Your task to perform on an android device: check data usage Image 0: 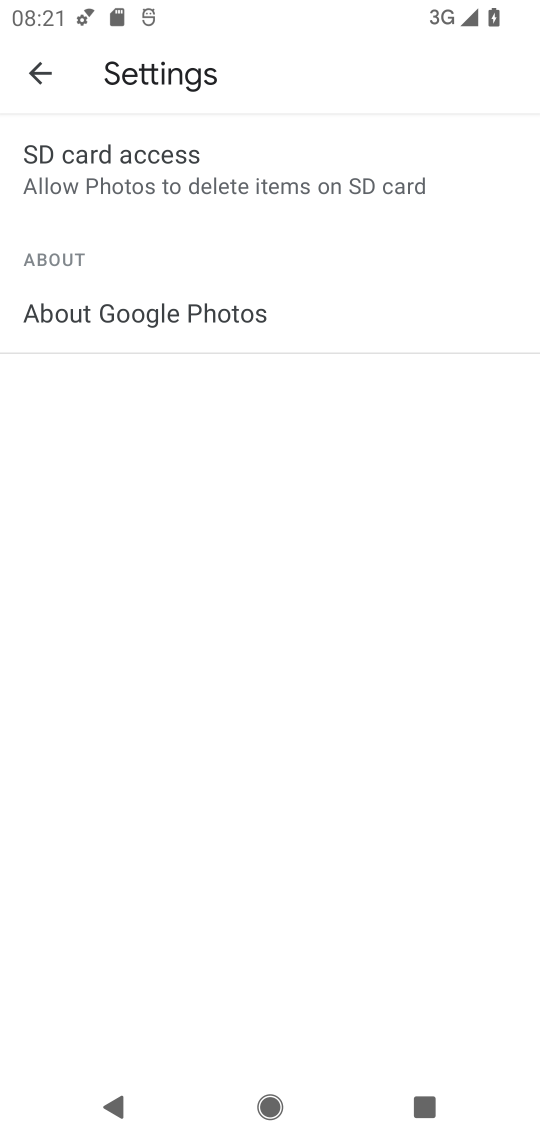
Step 0: press home button
Your task to perform on an android device: check data usage Image 1: 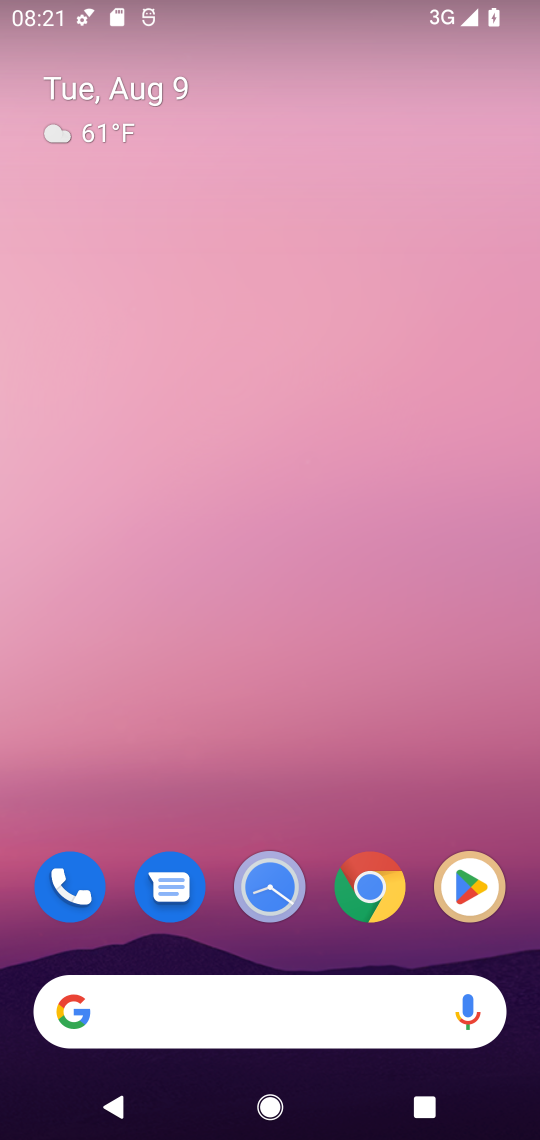
Step 1: drag from (333, 813) to (438, 0)
Your task to perform on an android device: check data usage Image 2: 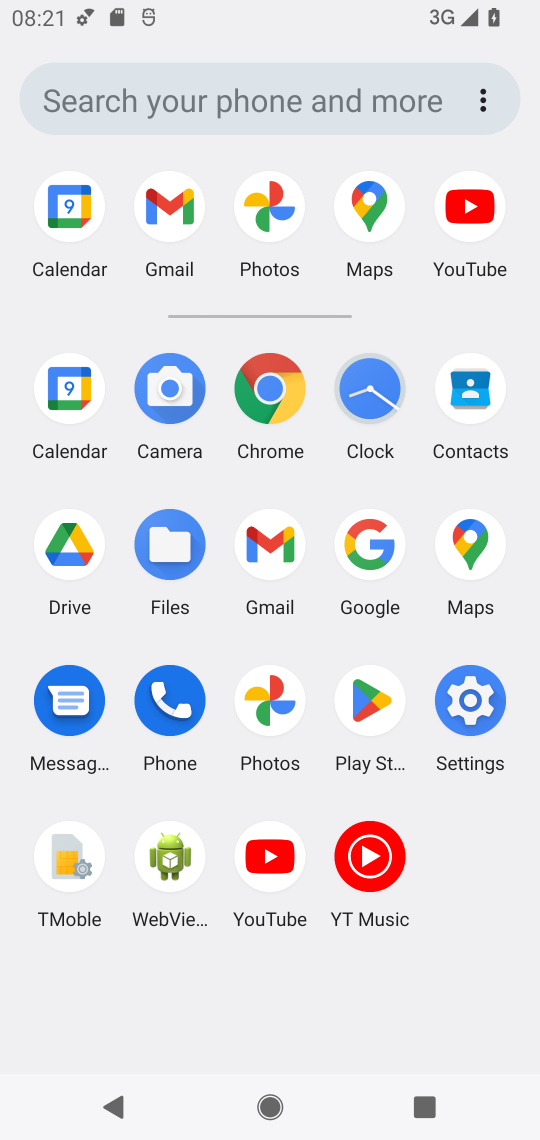
Step 2: click (474, 703)
Your task to perform on an android device: check data usage Image 3: 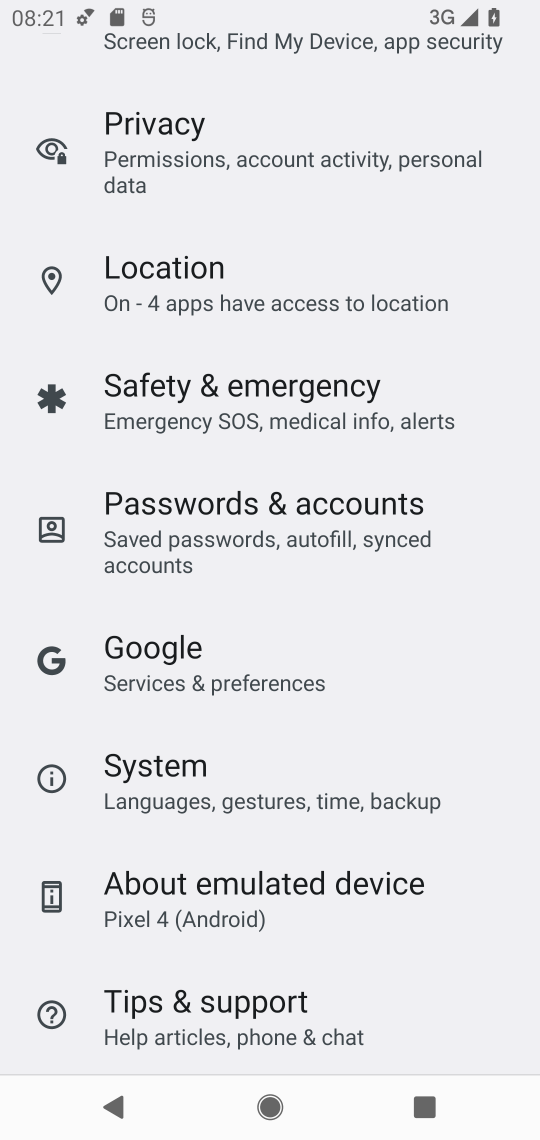
Step 3: drag from (330, 221) to (348, 1014)
Your task to perform on an android device: check data usage Image 4: 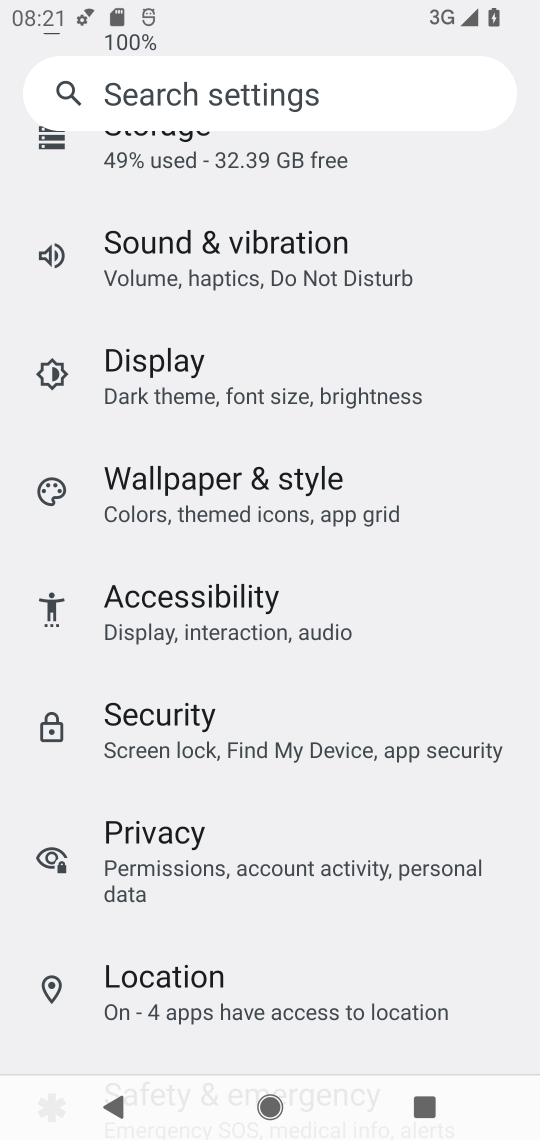
Step 4: drag from (322, 298) to (337, 926)
Your task to perform on an android device: check data usage Image 5: 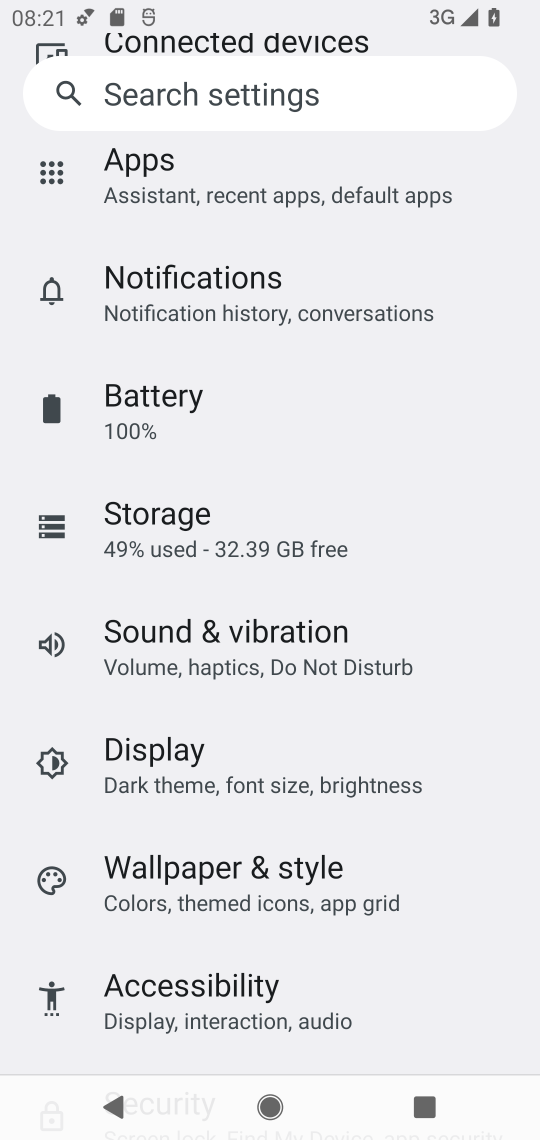
Step 5: drag from (318, 440) to (328, 932)
Your task to perform on an android device: check data usage Image 6: 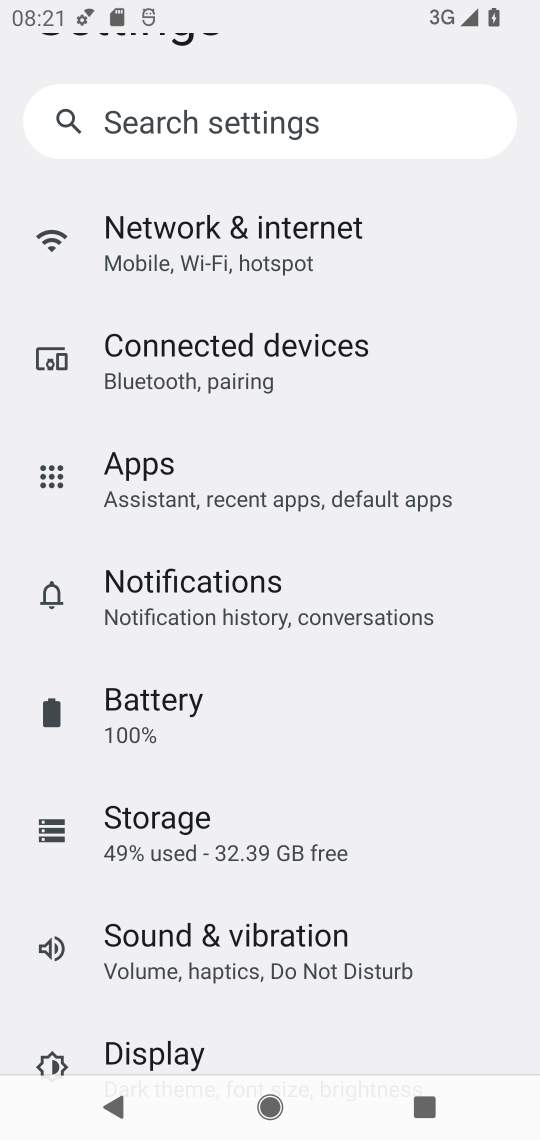
Step 6: click (304, 246)
Your task to perform on an android device: check data usage Image 7: 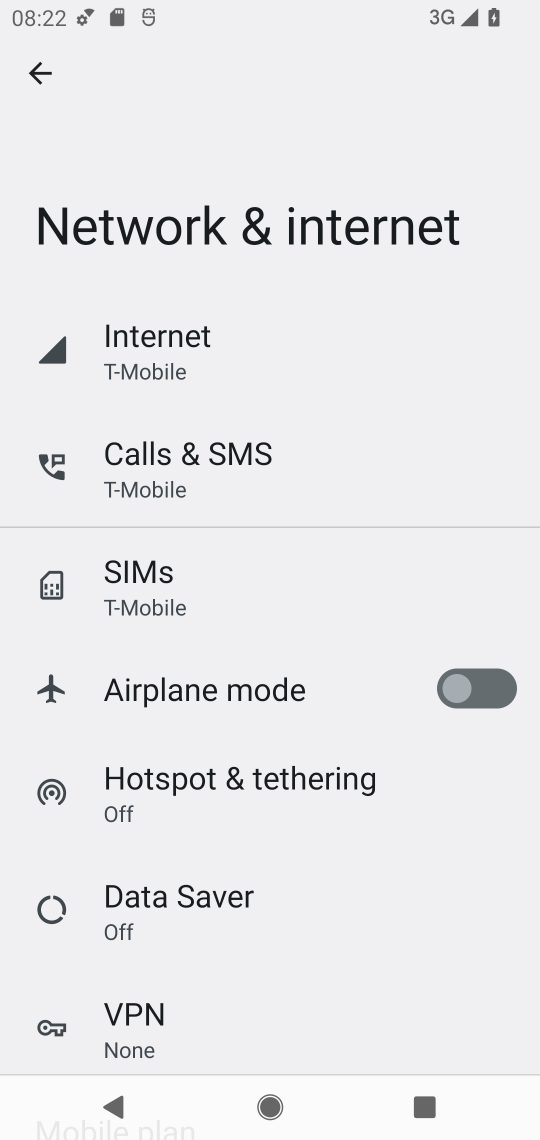
Step 7: click (166, 587)
Your task to perform on an android device: check data usage Image 8: 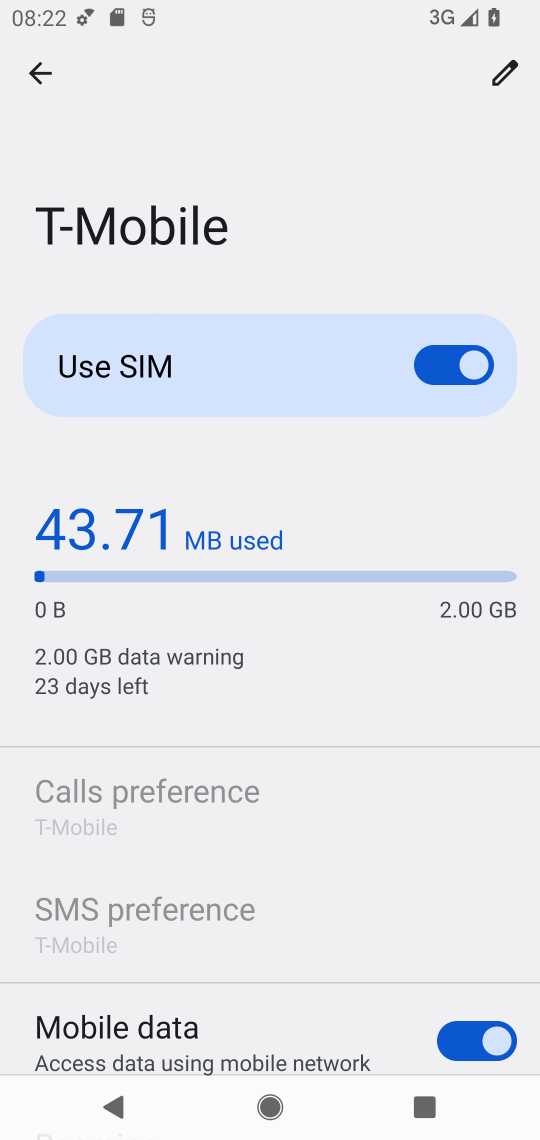
Step 8: task complete